Your task to perform on an android device: turn on bluetooth scan Image 0: 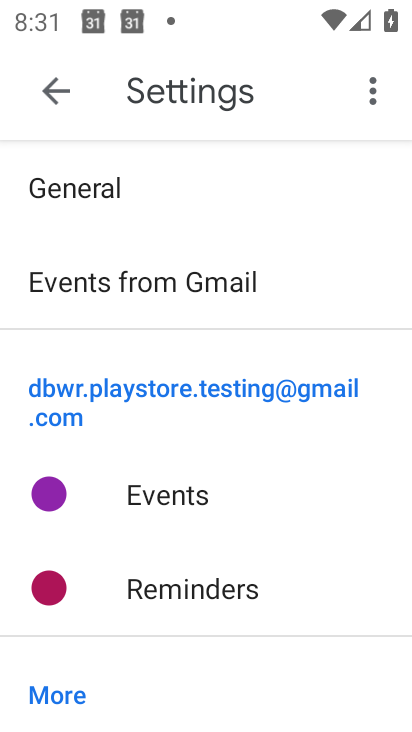
Step 0: press home button
Your task to perform on an android device: turn on bluetooth scan Image 1: 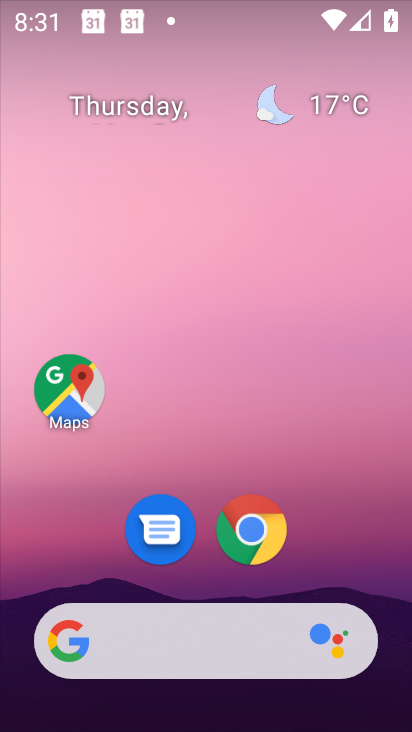
Step 1: drag from (350, 551) to (267, 223)
Your task to perform on an android device: turn on bluetooth scan Image 2: 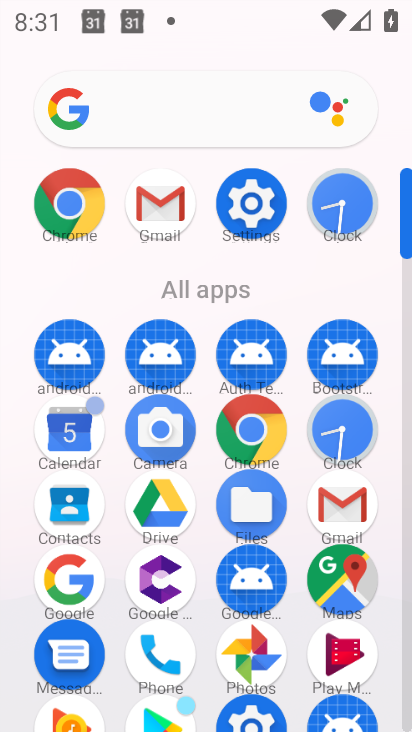
Step 2: click (249, 198)
Your task to perform on an android device: turn on bluetooth scan Image 3: 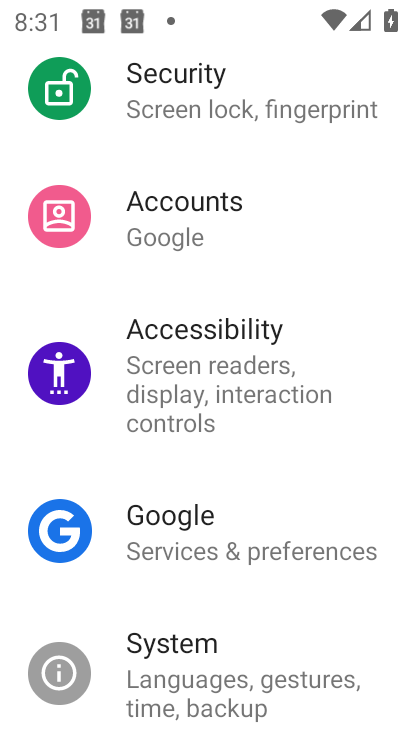
Step 3: click (275, 503)
Your task to perform on an android device: turn on bluetooth scan Image 4: 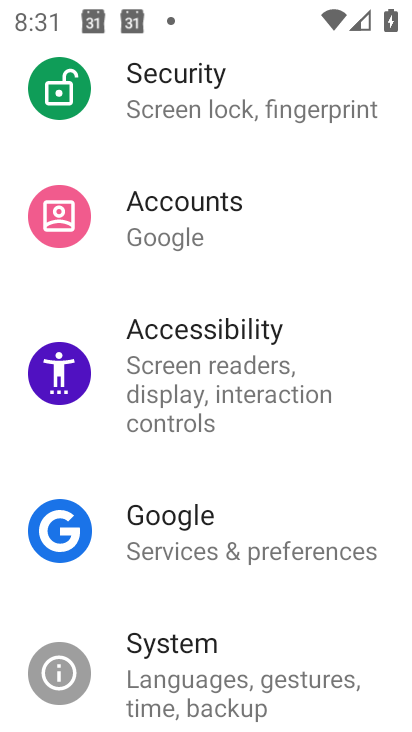
Step 4: drag from (282, 167) to (364, 447)
Your task to perform on an android device: turn on bluetooth scan Image 5: 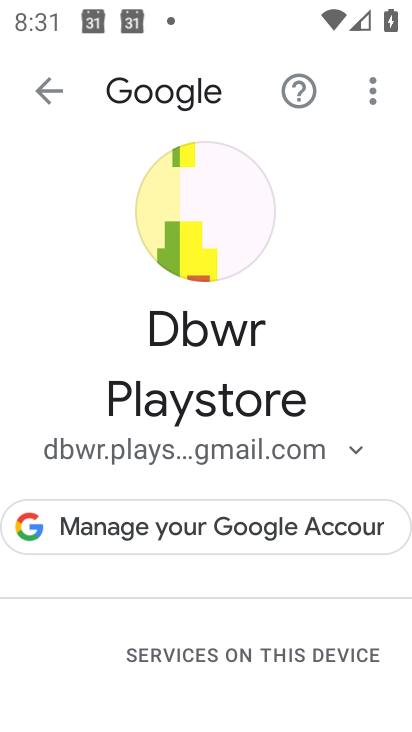
Step 5: click (57, 77)
Your task to perform on an android device: turn on bluetooth scan Image 6: 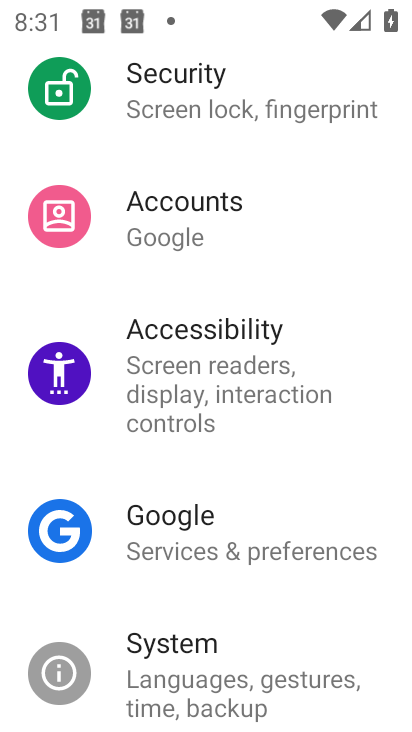
Step 6: drag from (300, 295) to (295, 727)
Your task to perform on an android device: turn on bluetooth scan Image 7: 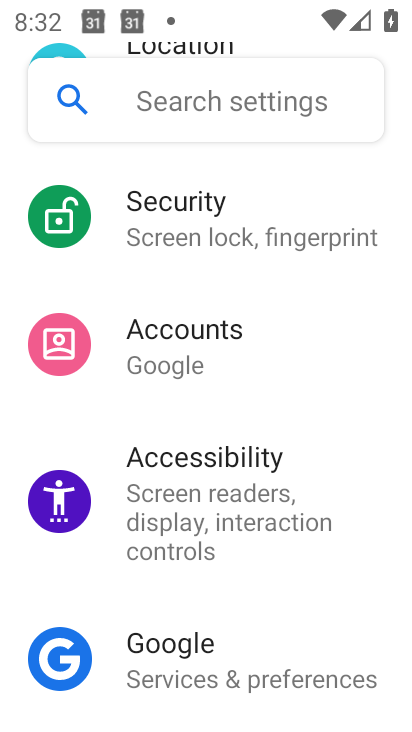
Step 7: drag from (251, 609) to (249, 335)
Your task to perform on an android device: turn on bluetooth scan Image 8: 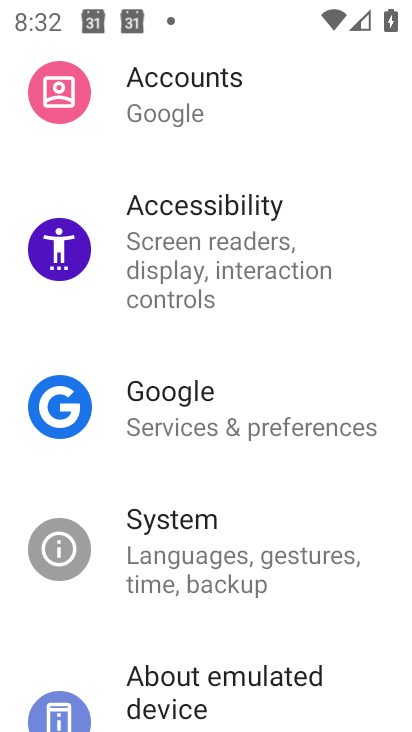
Step 8: drag from (266, 308) to (267, 675)
Your task to perform on an android device: turn on bluetooth scan Image 9: 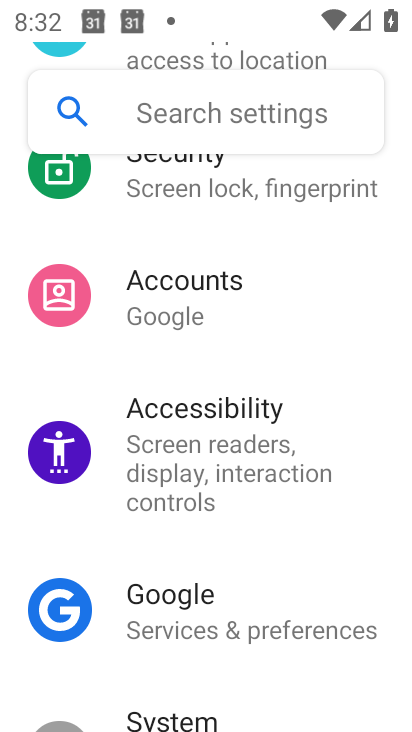
Step 9: drag from (282, 241) to (228, 709)
Your task to perform on an android device: turn on bluetooth scan Image 10: 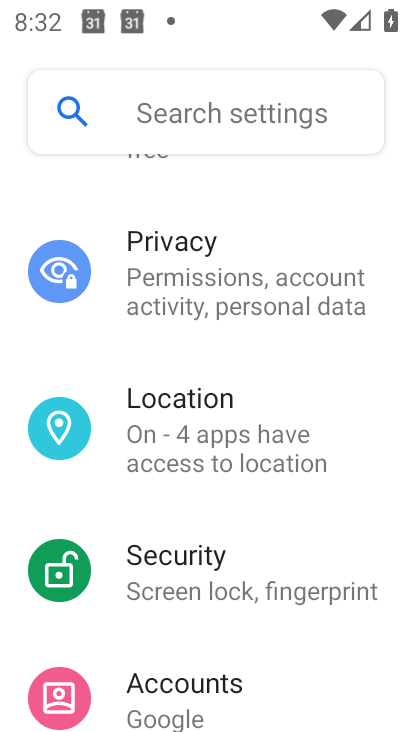
Step 10: click (186, 403)
Your task to perform on an android device: turn on bluetooth scan Image 11: 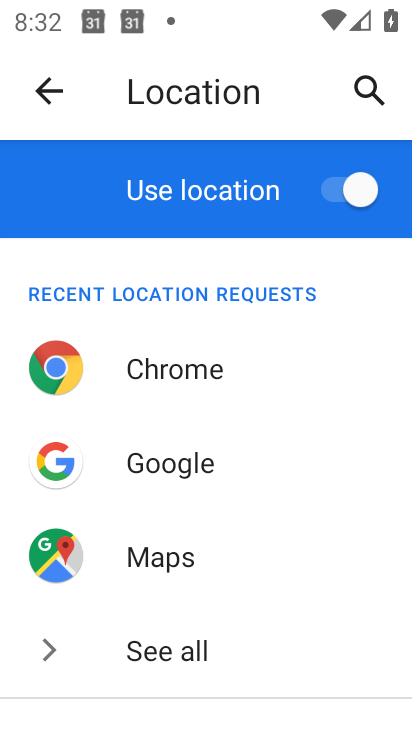
Step 11: drag from (257, 463) to (267, 242)
Your task to perform on an android device: turn on bluetooth scan Image 12: 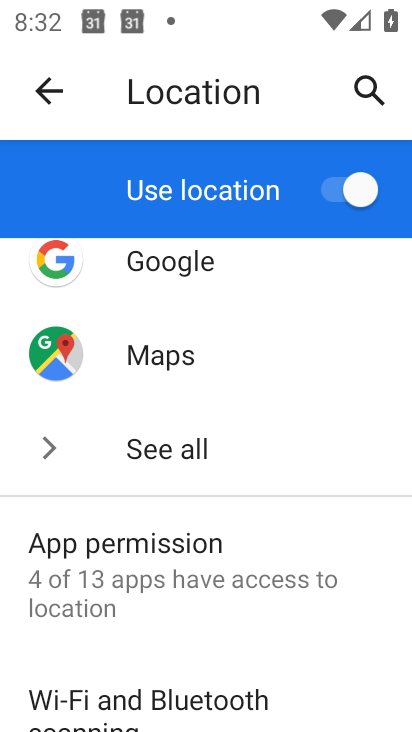
Step 12: drag from (235, 640) to (235, 429)
Your task to perform on an android device: turn on bluetooth scan Image 13: 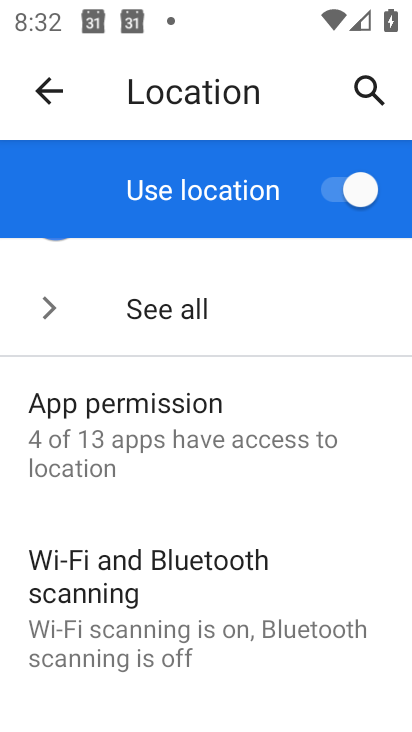
Step 13: click (137, 565)
Your task to perform on an android device: turn on bluetooth scan Image 14: 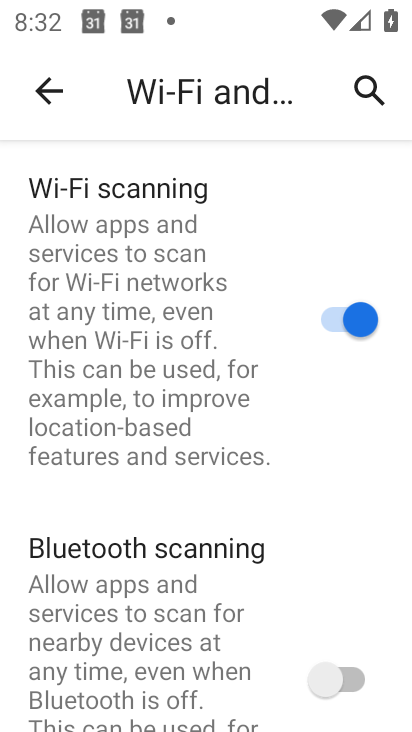
Step 14: click (318, 672)
Your task to perform on an android device: turn on bluetooth scan Image 15: 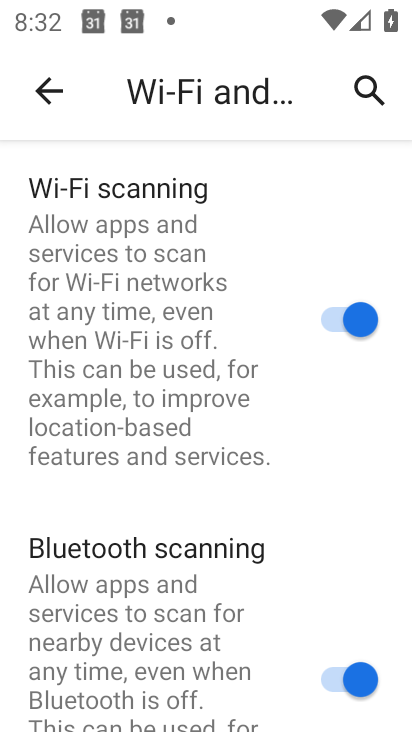
Step 15: task complete